Your task to perform on an android device: change text size in settings app Image 0: 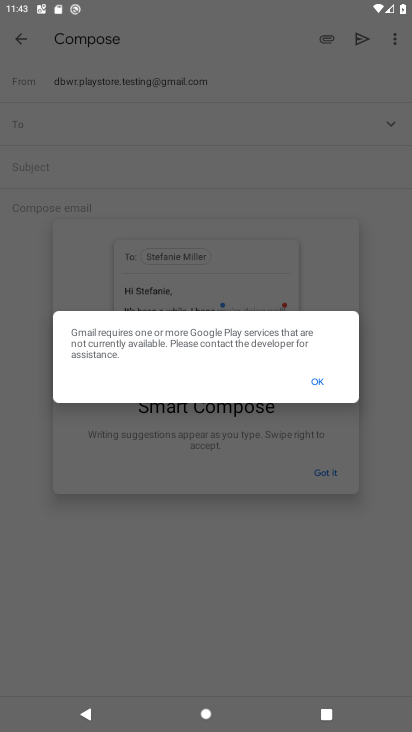
Step 0: press home button
Your task to perform on an android device: change text size in settings app Image 1: 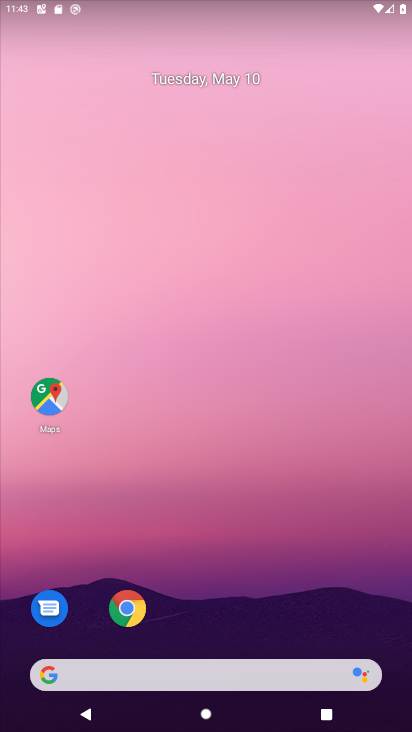
Step 1: drag from (229, 538) to (252, 131)
Your task to perform on an android device: change text size in settings app Image 2: 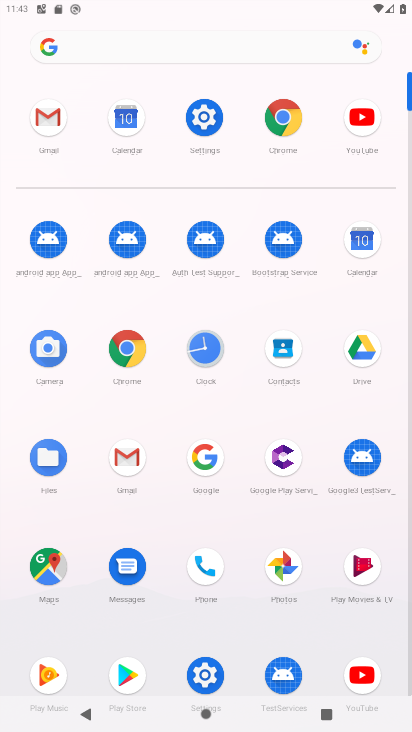
Step 2: click (191, 141)
Your task to perform on an android device: change text size in settings app Image 3: 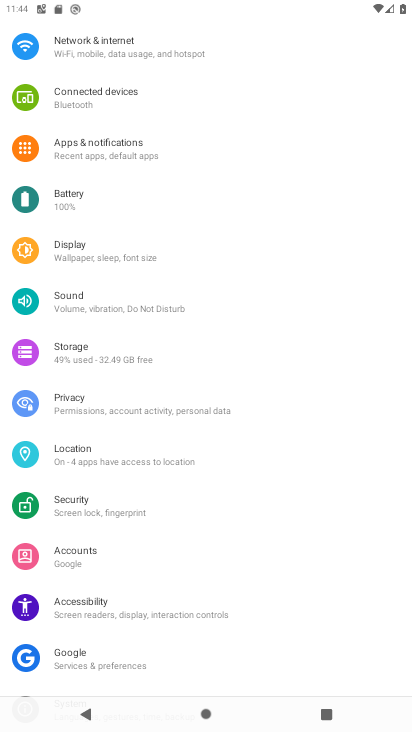
Step 3: click (79, 259)
Your task to perform on an android device: change text size in settings app Image 4: 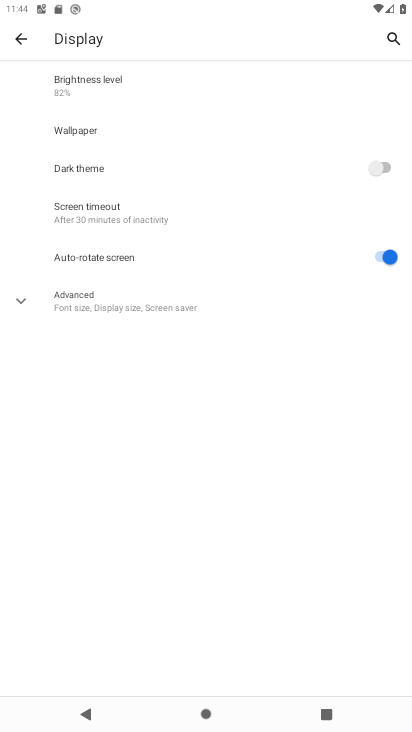
Step 4: click (114, 301)
Your task to perform on an android device: change text size in settings app Image 5: 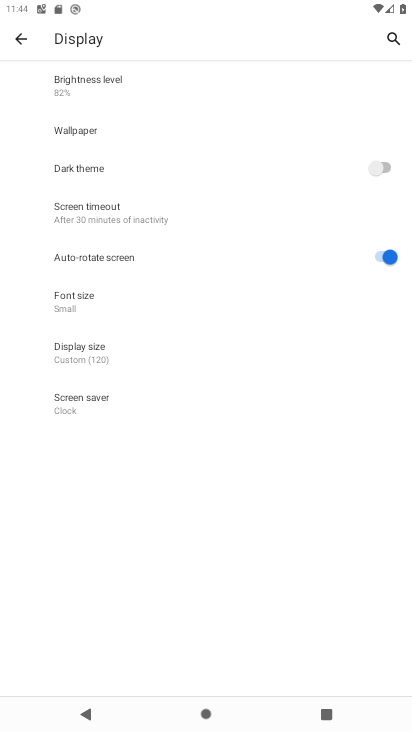
Step 5: click (106, 299)
Your task to perform on an android device: change text size in settings app Image 6: 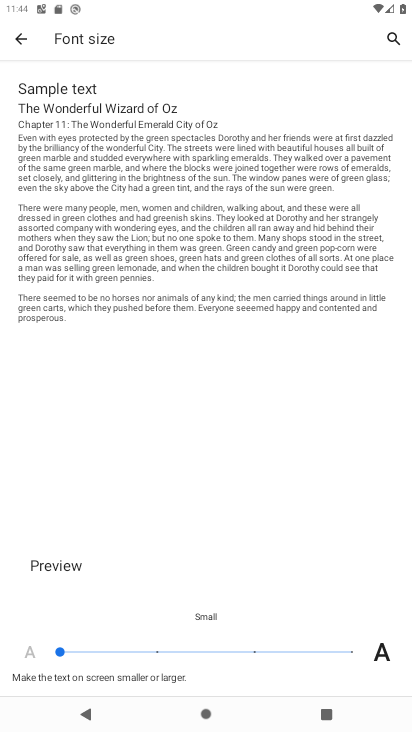
Step 6: click (156, 651)
Your task to perform on an android device: change text size in settings app Image 7: 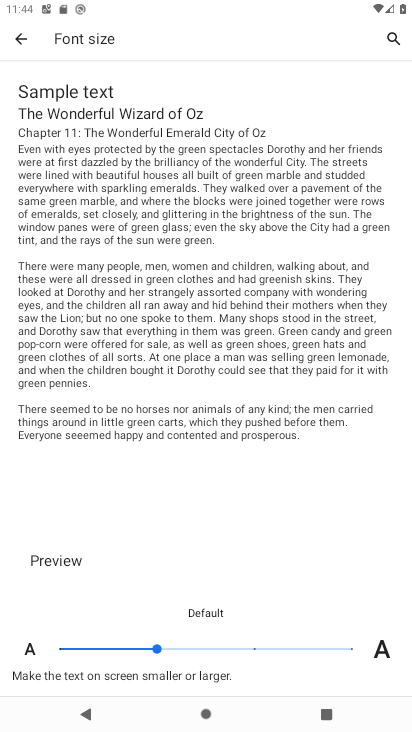
Step 7: task complete